Your task to perform on an android device: empty trash in the gmail app Image 0: 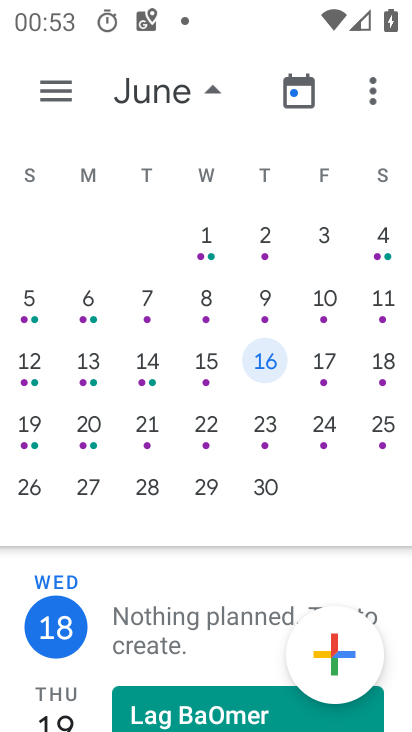
Step 0: press home button
Your task to perform on an android device: empty trash in the gmail app Image 1: 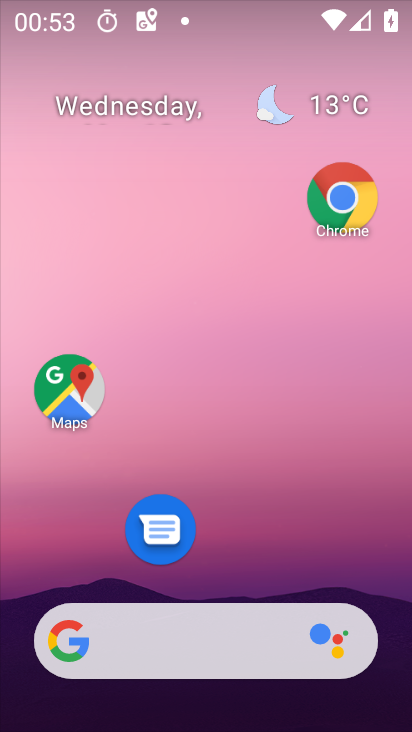
Step 1: drag from (220, 579) to (236, 74)
Your task to perform on an android device: empty trash in the gmail app Image 2: 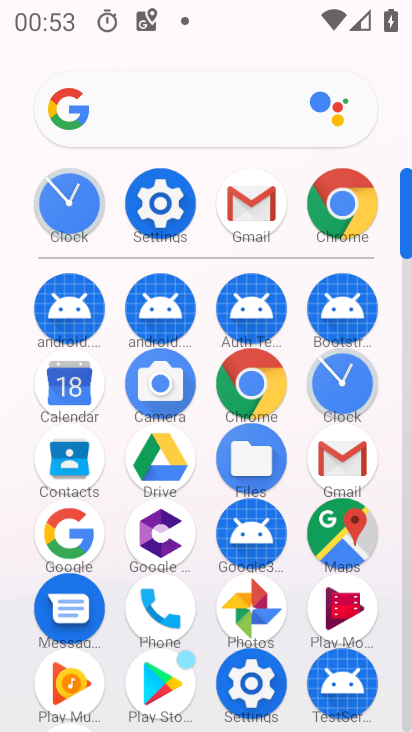
Step 2: click (250, 216)
Your task to perform on an android device: empty trash in the gmail app Image 3: 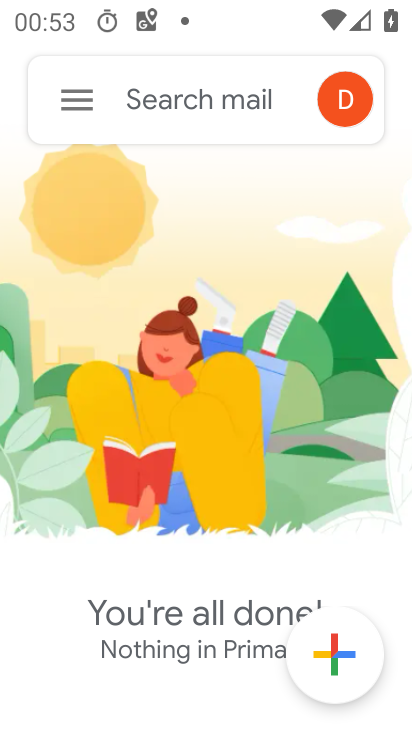
Step 3: click (60, 82)
Your task to perform on an android device: empty trash in the gmail app Image 4: 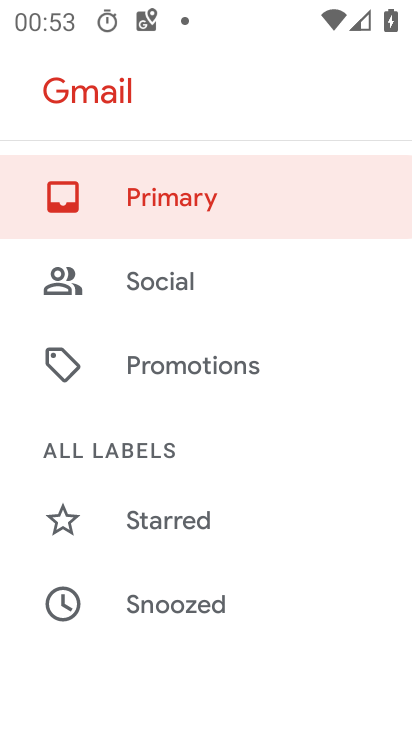
Step 4: drag from (143, 651) to (201, 350)
Your task to perform on an android device: empty trash in the gmail app Image 5: 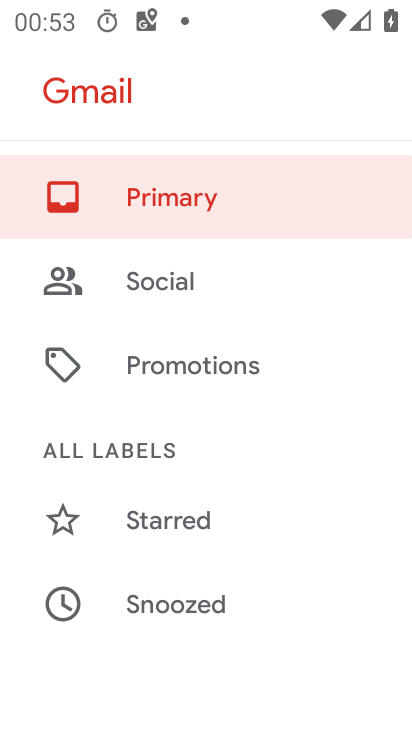
Step 5: drag from (105, 655) to (373, 22)
Your task to perform on an android device: empty trash in the gmail app Image 6: 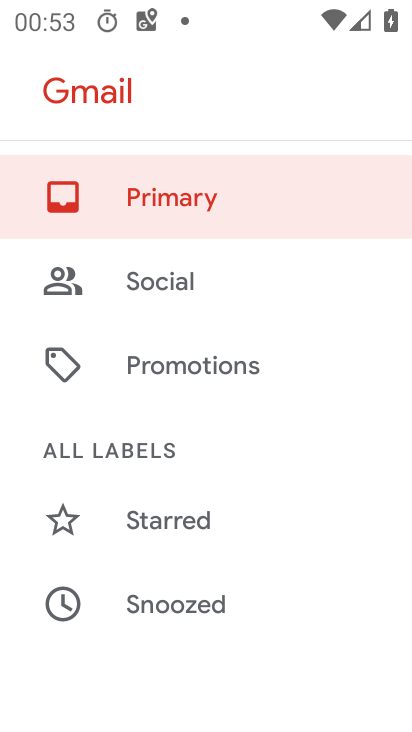
Step 6: drag from (111, 627) to (174, 60)
Your task to perform on an android device: empty trash in the gmail app Image 7: 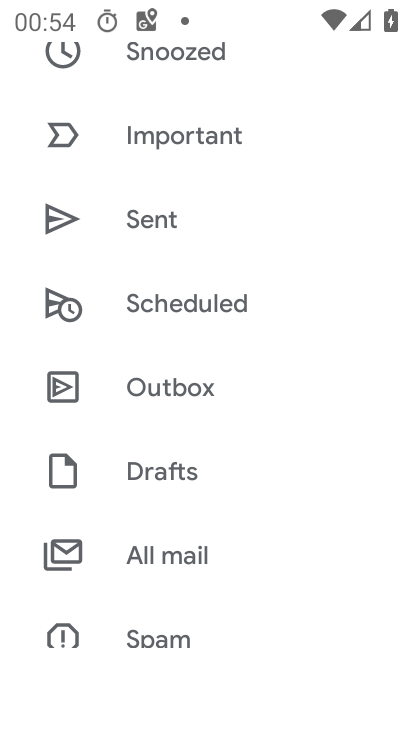
Step 7: drag from (113, 596) to (328, 54)
Your task to perform on an android device: empty trash in the gmail app Image 8: 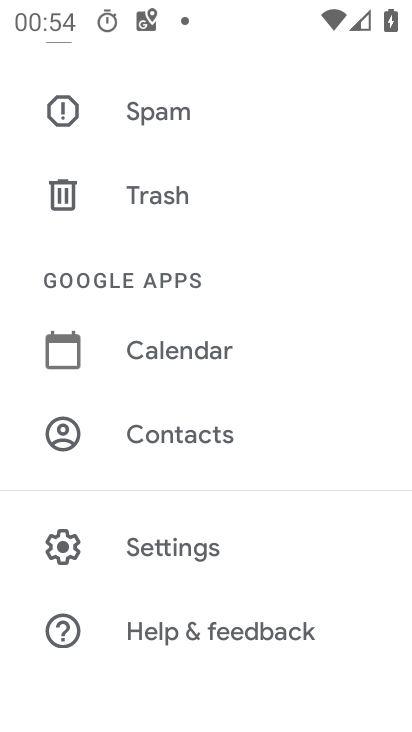
Step 8: click (202, 197)
Your task to perform on an android device: empty trash in the gmail app Image 9: 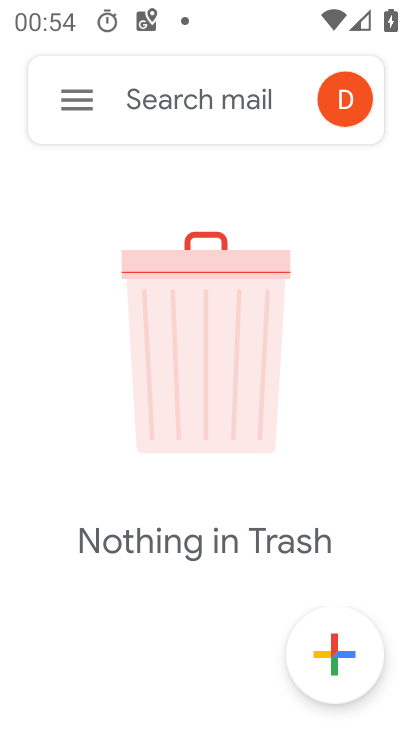
Step 9: task complete